Your task to perform on an android device: Search for vegetarian restaurants on Maps Image 0: 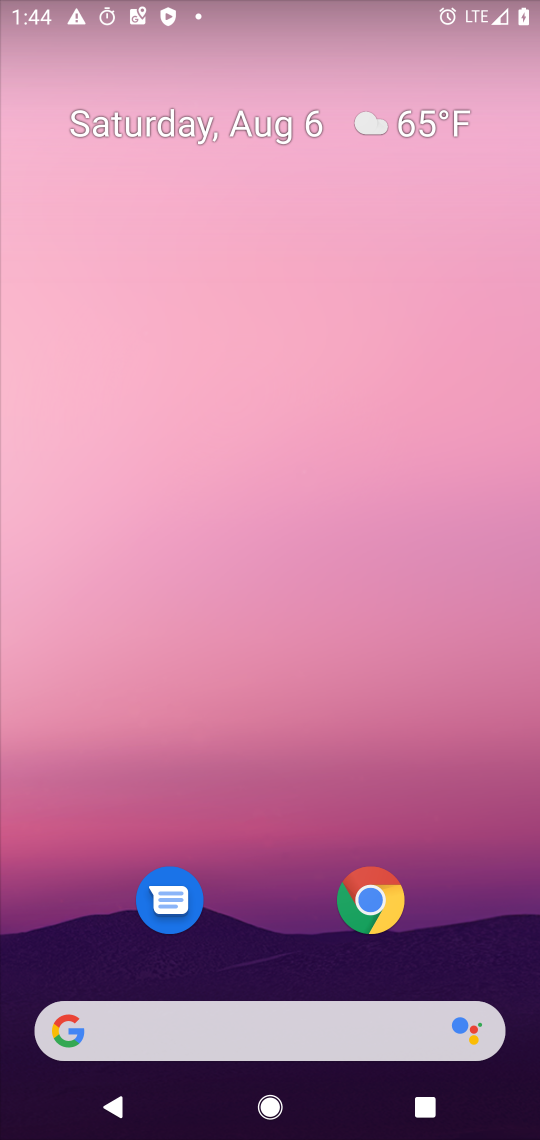
Step 0: drag from (276, 981) to (284, 178)
Your task to perform on an android device: Search for vegetarian restaurants on Maps Image 1: 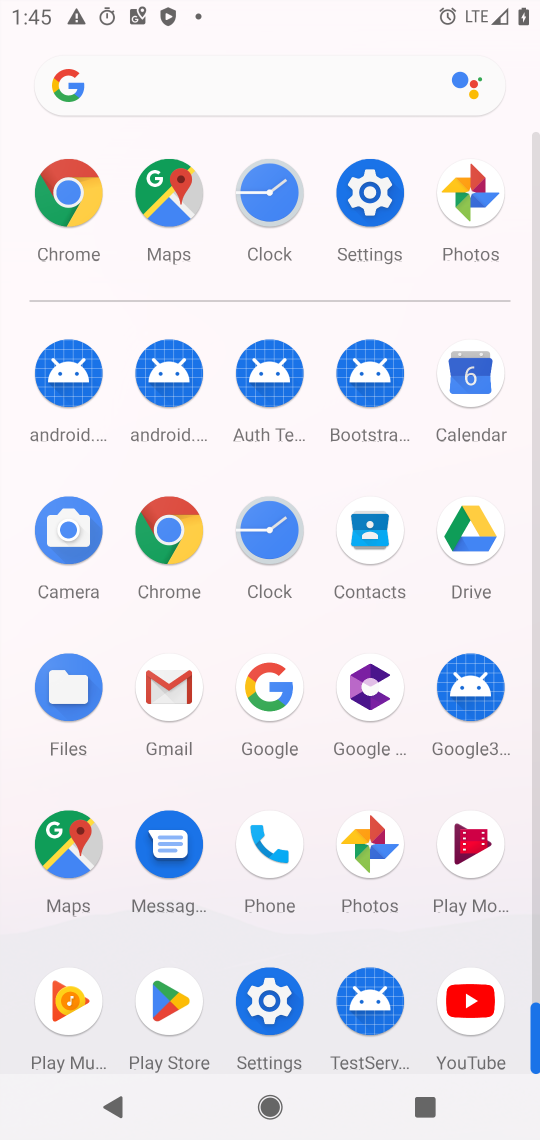
Step 1: click (76, 844)
Your task to perform on an android device: Search for vegetarian restaurants on Maps Image 2: 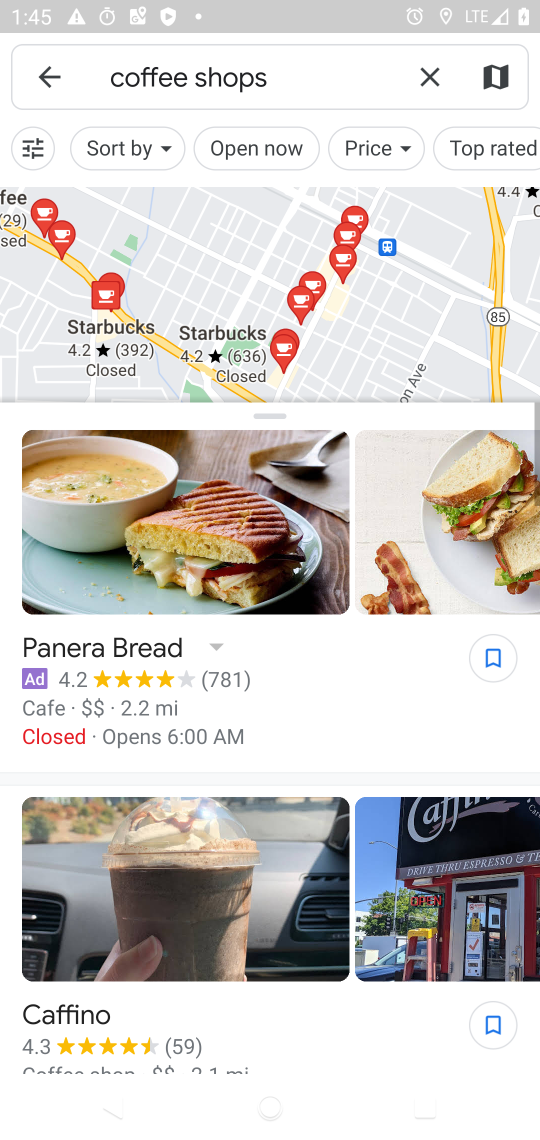
Step 2: click (427, 72)
Your task to perform on an android device: Search for vegetarian restaurants on Maps Image 3: 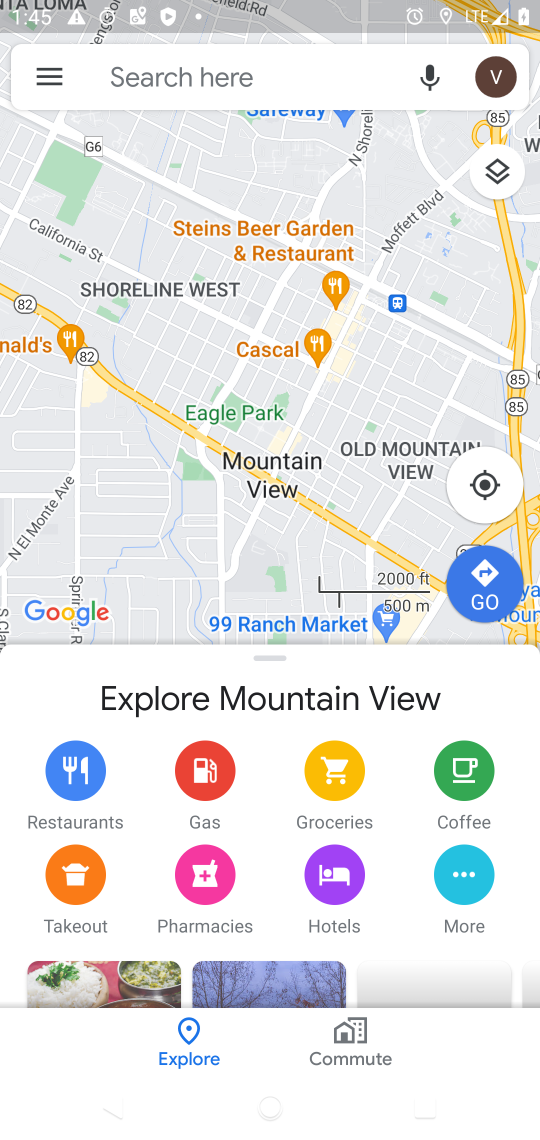
Step 3: click (270, 92)
Your task to perform on an android device: Search for vegetarian restaurants on Maps Image 4: 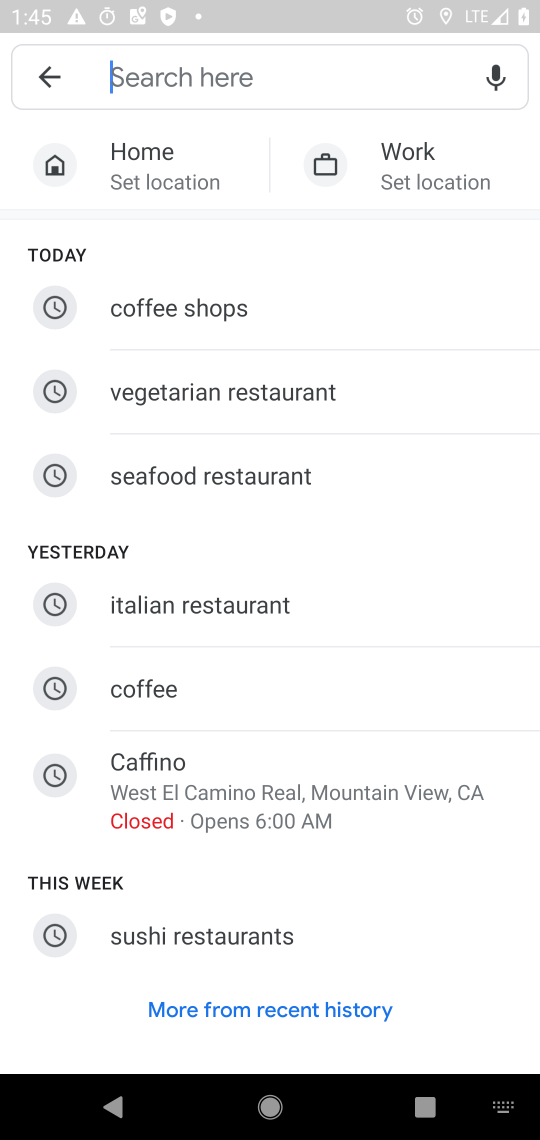
Step 4: type "Vegetarian restaurants"
Your task to perform on an android device: Search for vegetarian restaurants on Maps Image 5: 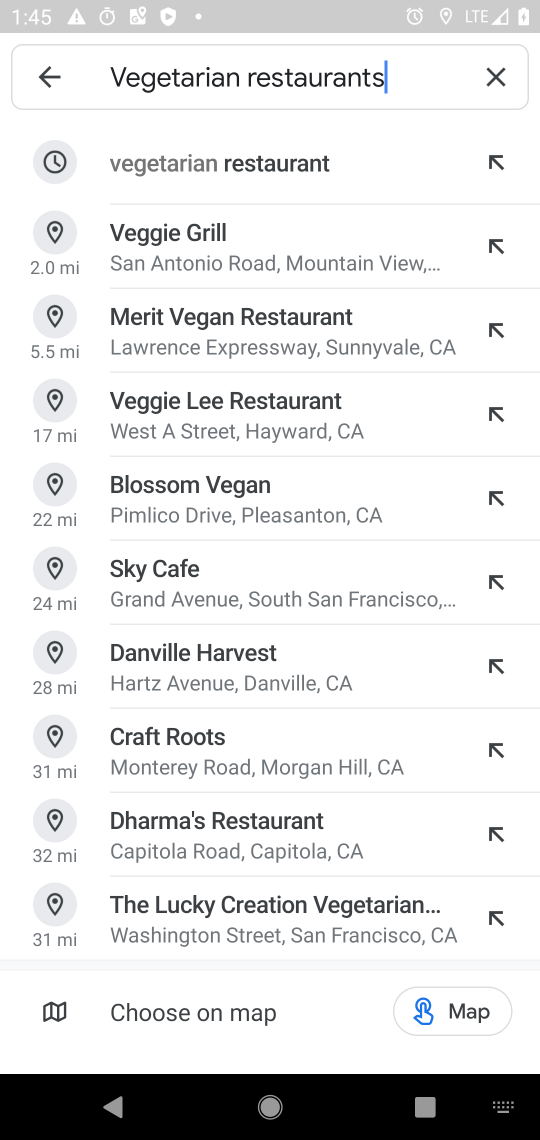
Step 5: click (284, 160)
Your task to perform on an android device: Search for vegetarian restaurants on Maps Image 6: 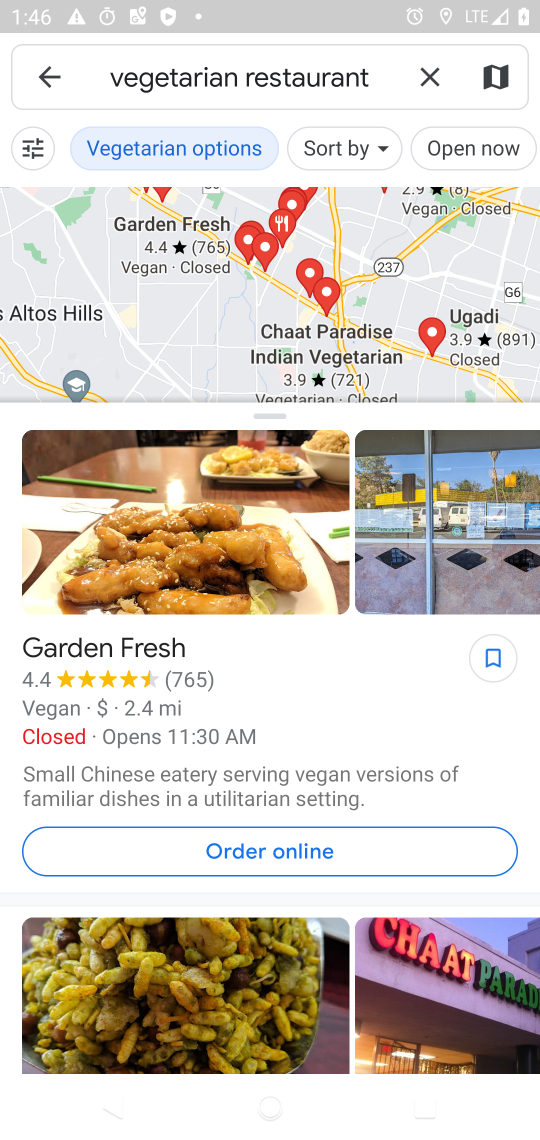
Step 6: task complete